Your task to perform on an android device: Show me recent news Image 0: 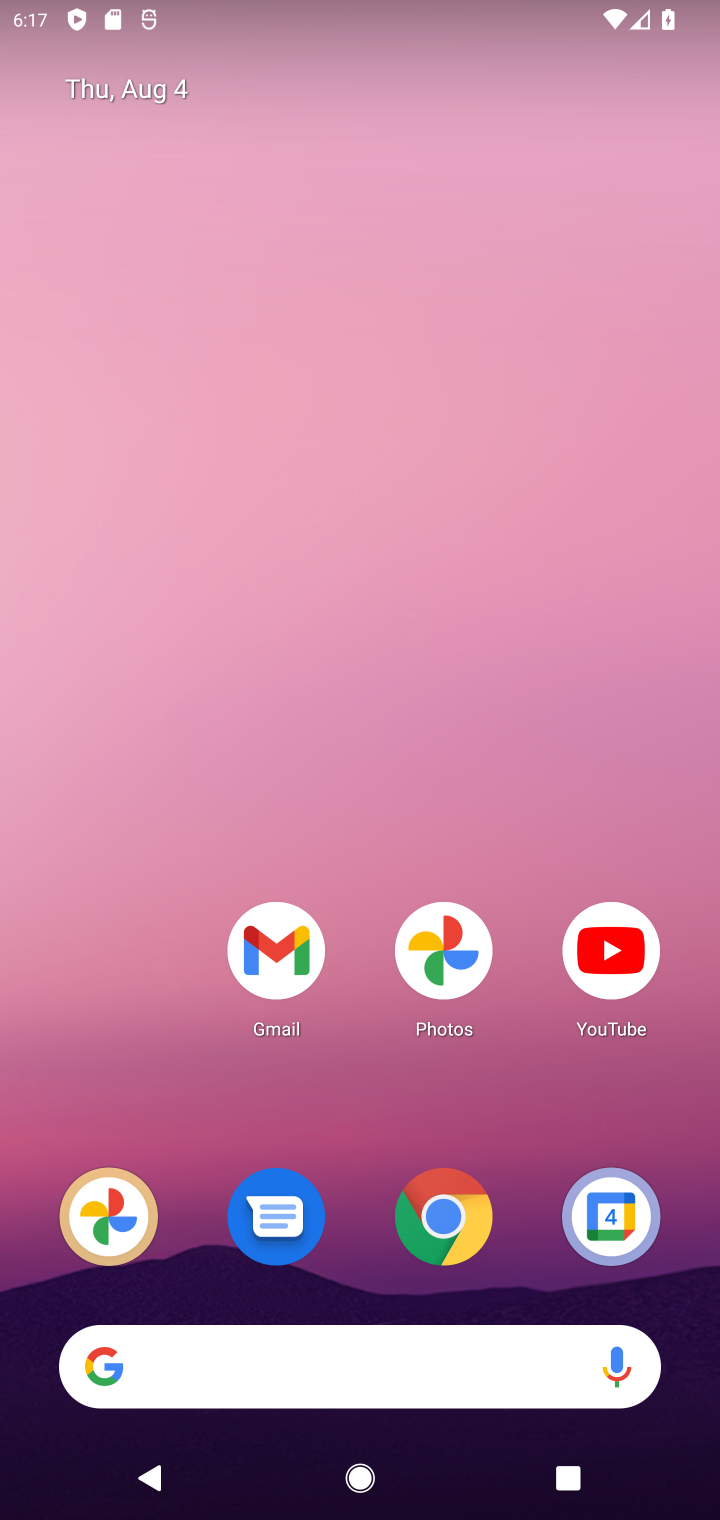
Step 0: drag from (9, 684) to (695, 701)
Your task to perform on an android device: Show me recent news Image 1: 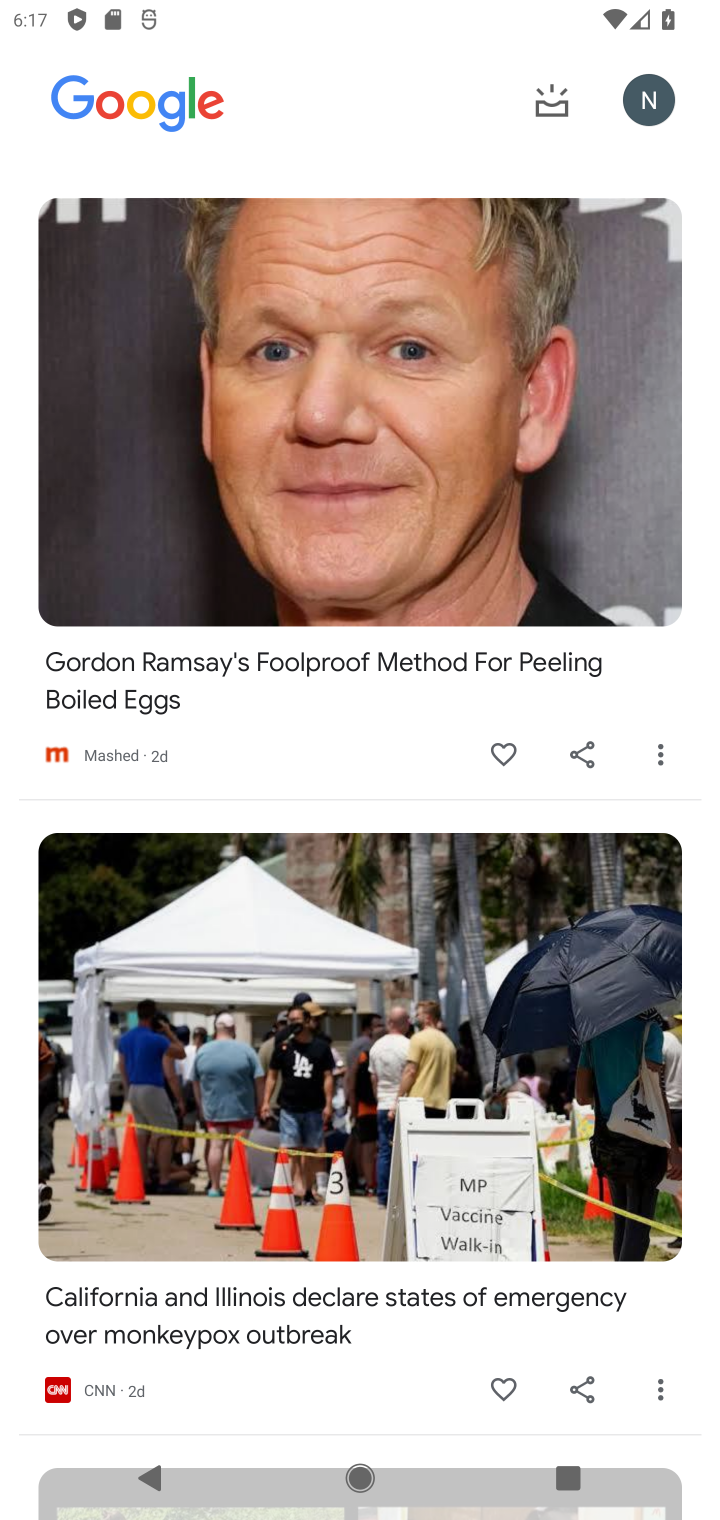
Step 1: task complete